Your task to perform on an android device: open chrome privacy settings Image 0: 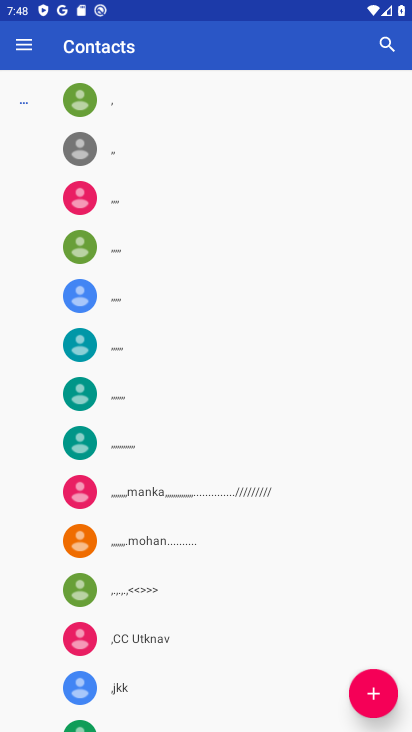
Step 0: press home button
Your task to perform on an android device: open chrome privacy settings Image 1: 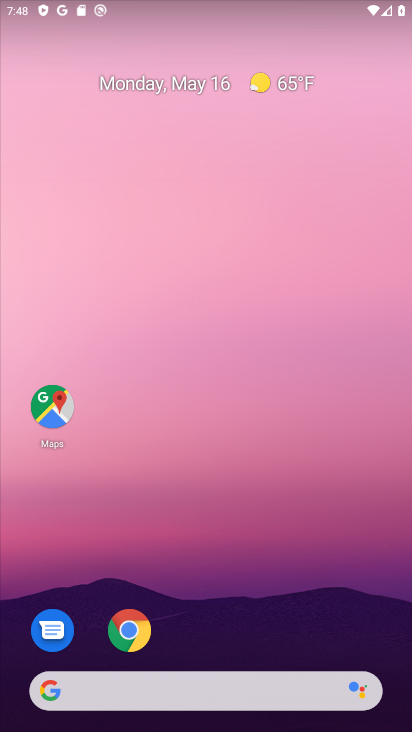
Step 1: click (140, 630)
Your task to perform on an android device: open chrome privacy settings Image 2: 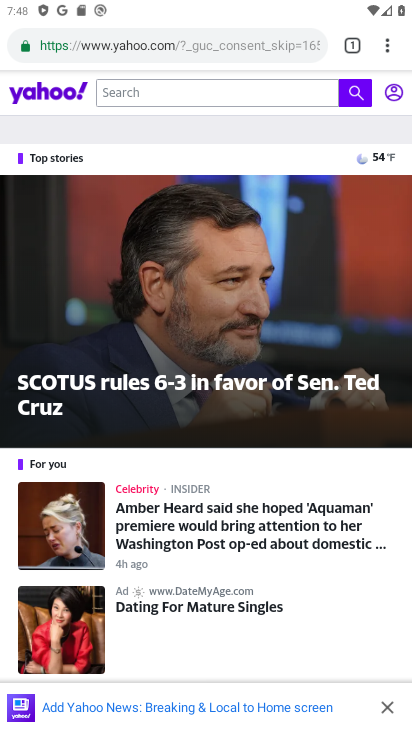
Step 2: drag from (387, 44) to (228, 500)
Your task to perform on an android device: open chrome privacy settings Image 3: 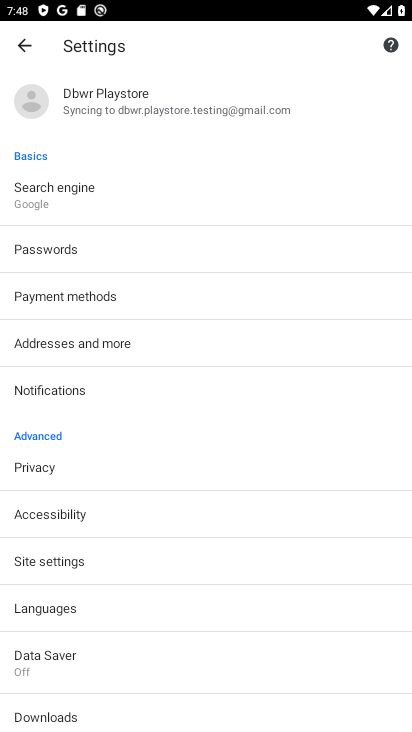
Step 3: click (44, 458)
Your task to perform on an android device: open chrome privacy settings Image 4: 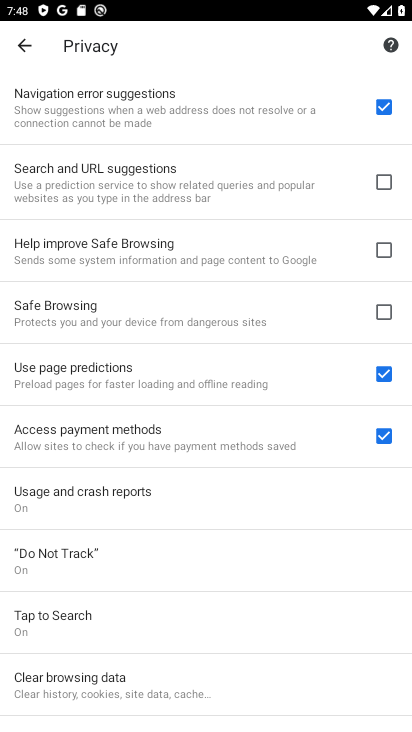
Step 4: task complete